Your task to perform on an android device: Go to sound settings Image 0: 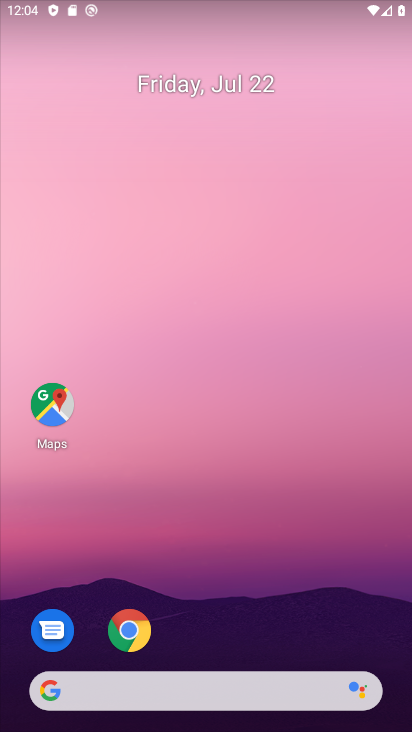
Step 0: drag from (239, 637) to (155, 193)
Your task to perform on an android device: Go to sound settings Image 1: 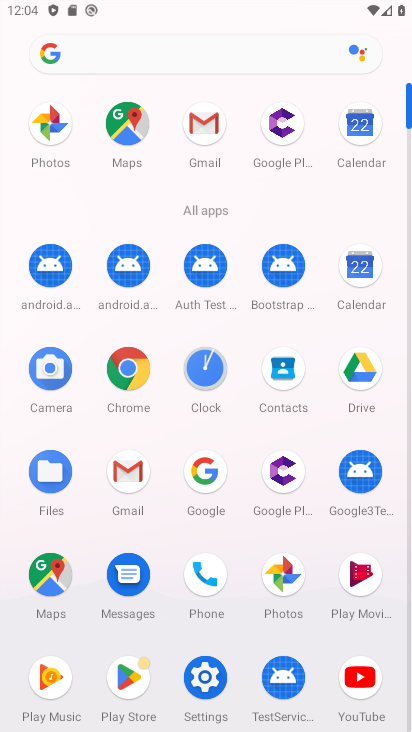
Step 1: click (196, 690)
Your task to perform on an android device: Go to sound settings Image 2: 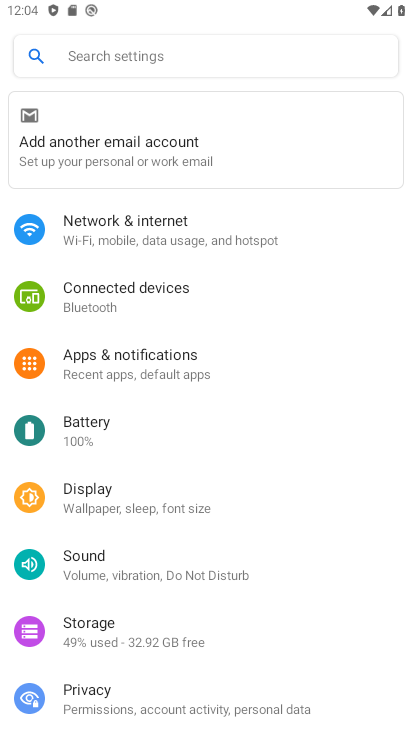
Step 2: click (191, 563)
Your task to perform on an android device: Go to sound settings Image 3: 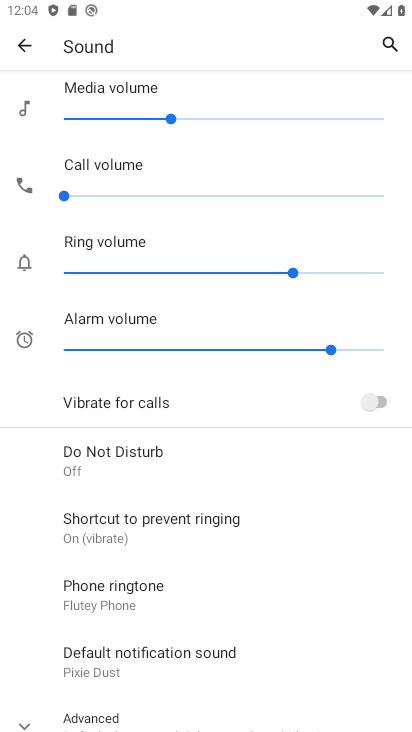
Step 3: task complete